Your task to perform on an android device: Clear the cart on target.com. Add dell xps to the cart on target.com, then select checkout. Image 0: 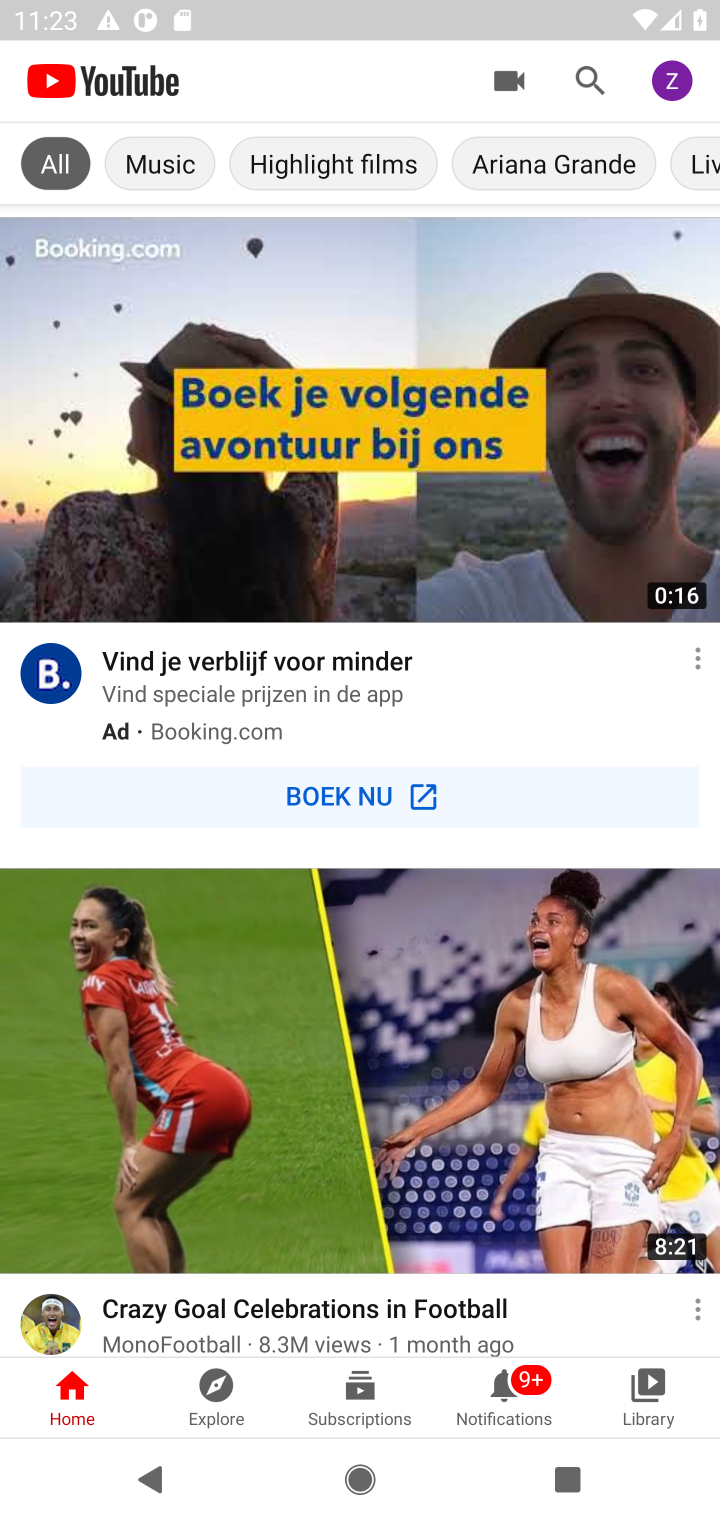
Step 0: press home button
Your task to perform on an android device: Clear the cart on target.com. Add dell xps to the cart on target.com, then select checkout. Image 1: 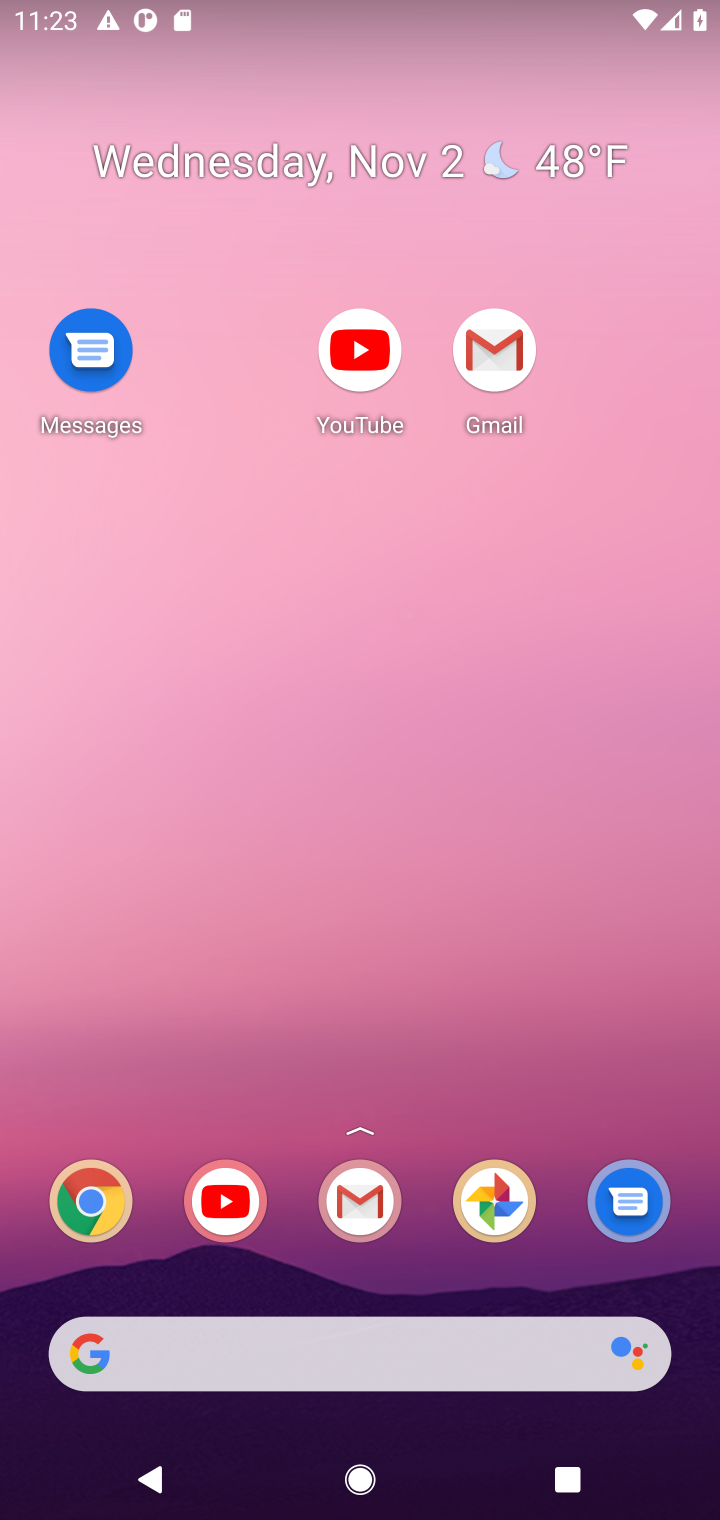
Step 1: drag from (426, 1220) to (353, 157)
Your task to perform on an android device: Clear the cart on target.com. Add dell xps to the cart on target.com, then select checkout. Image 2: 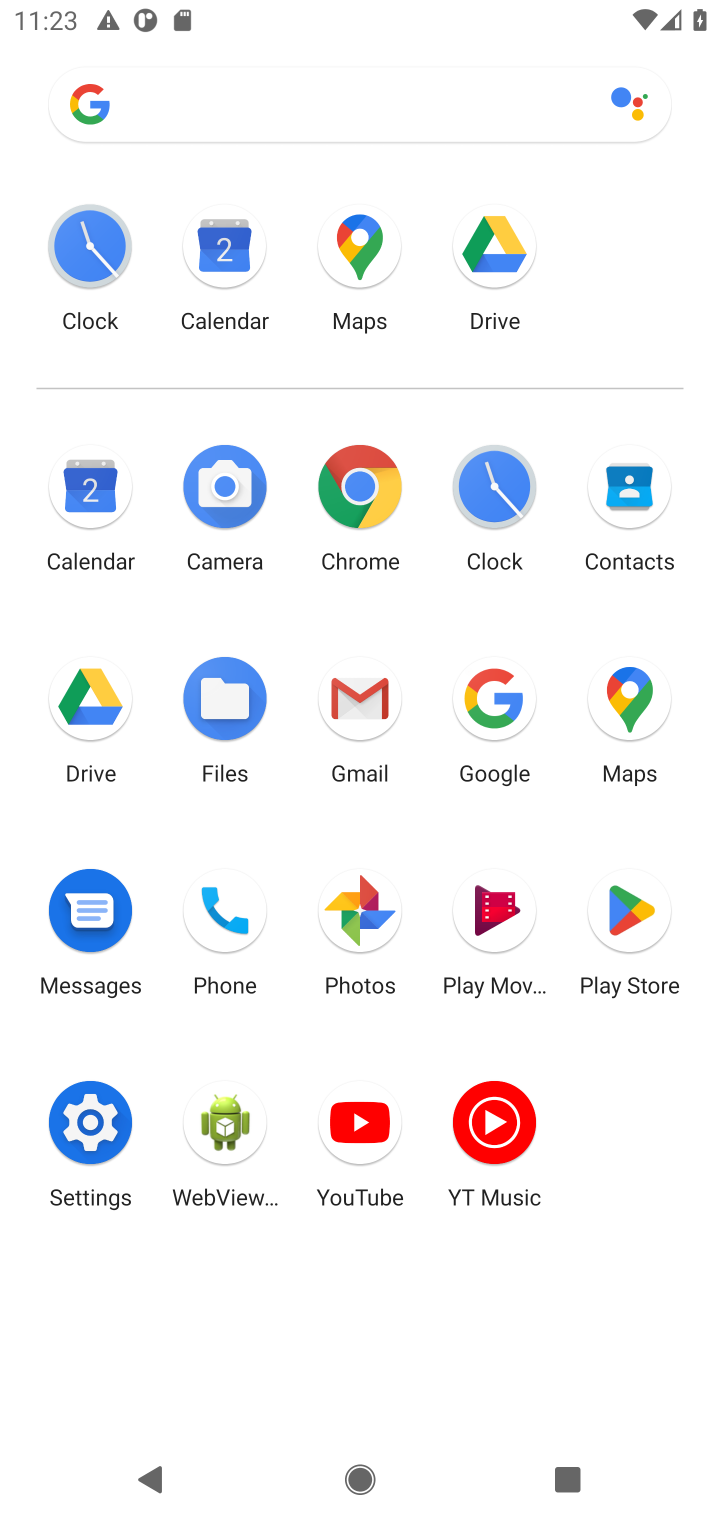
Step 2: click (356, 484)
Your task to perform on an android device: Clear the cart on target.com. Add dell xps to the cart on target.com, then select checkout. Image 3: 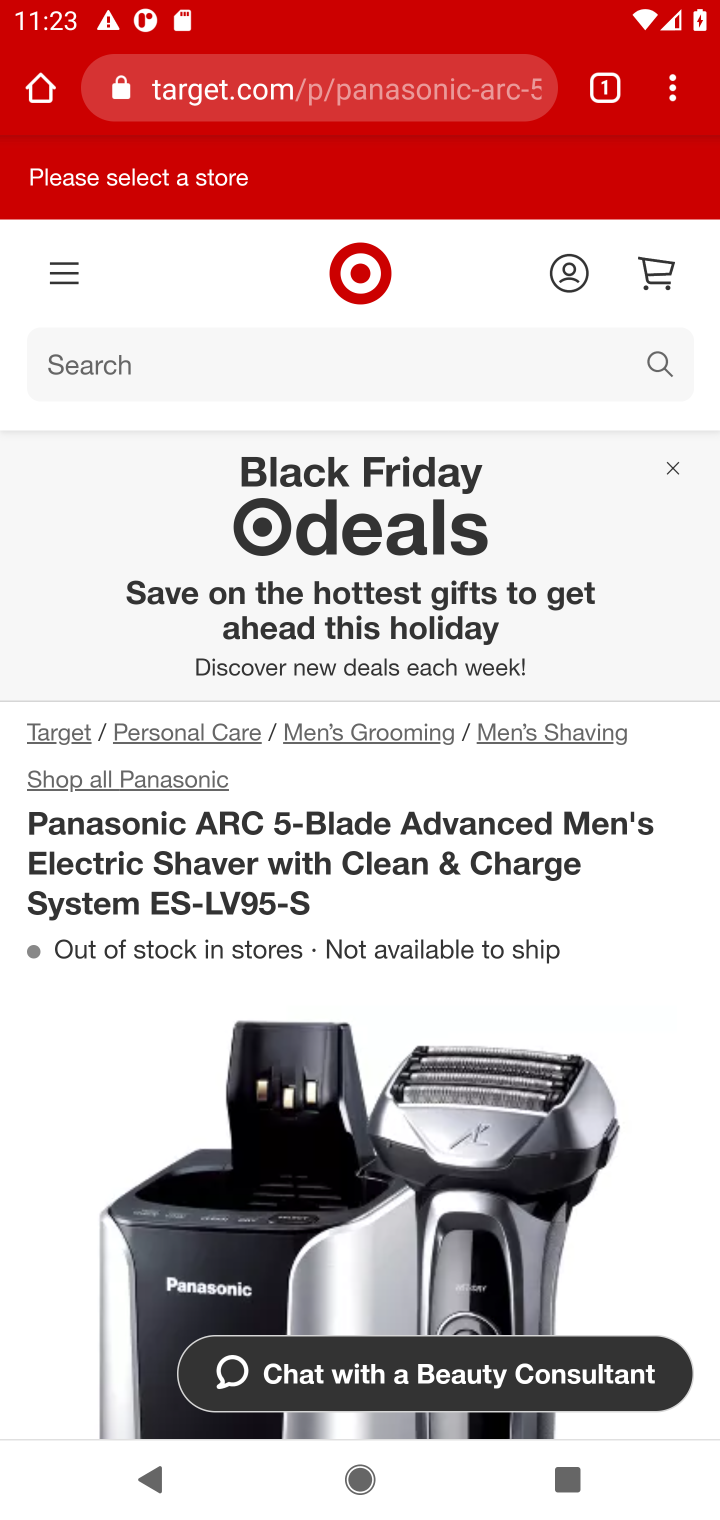
Step 3: click (357, 85)
Your task to perform on an android device: Clear the cart on target.com. Add dell xps to the cart on target.com, then select checkout. Image 4: 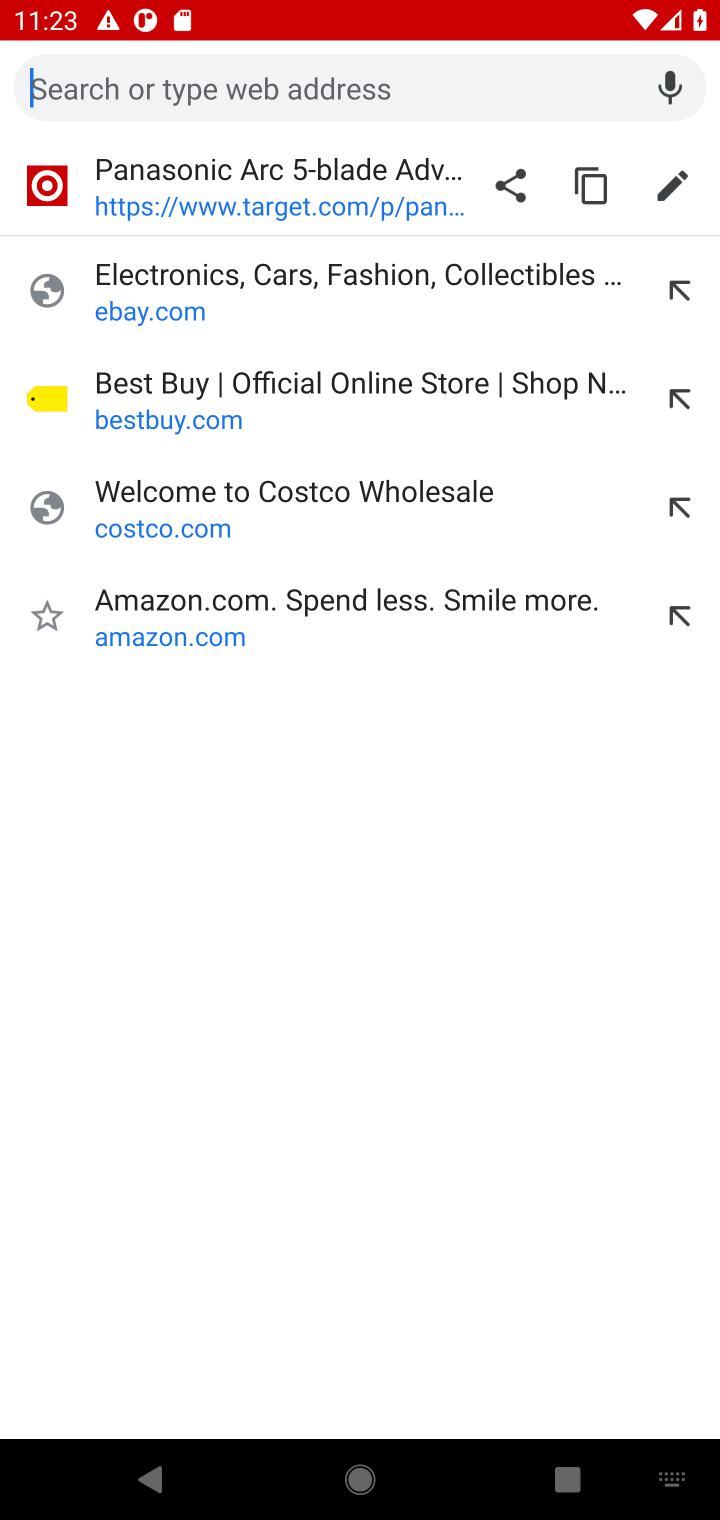
Step 4: type "target.com"
Your task to perform on an android device: Clear the cart on target.com. Add dell xps to the cart on target.com, then select checkout. Image 5: 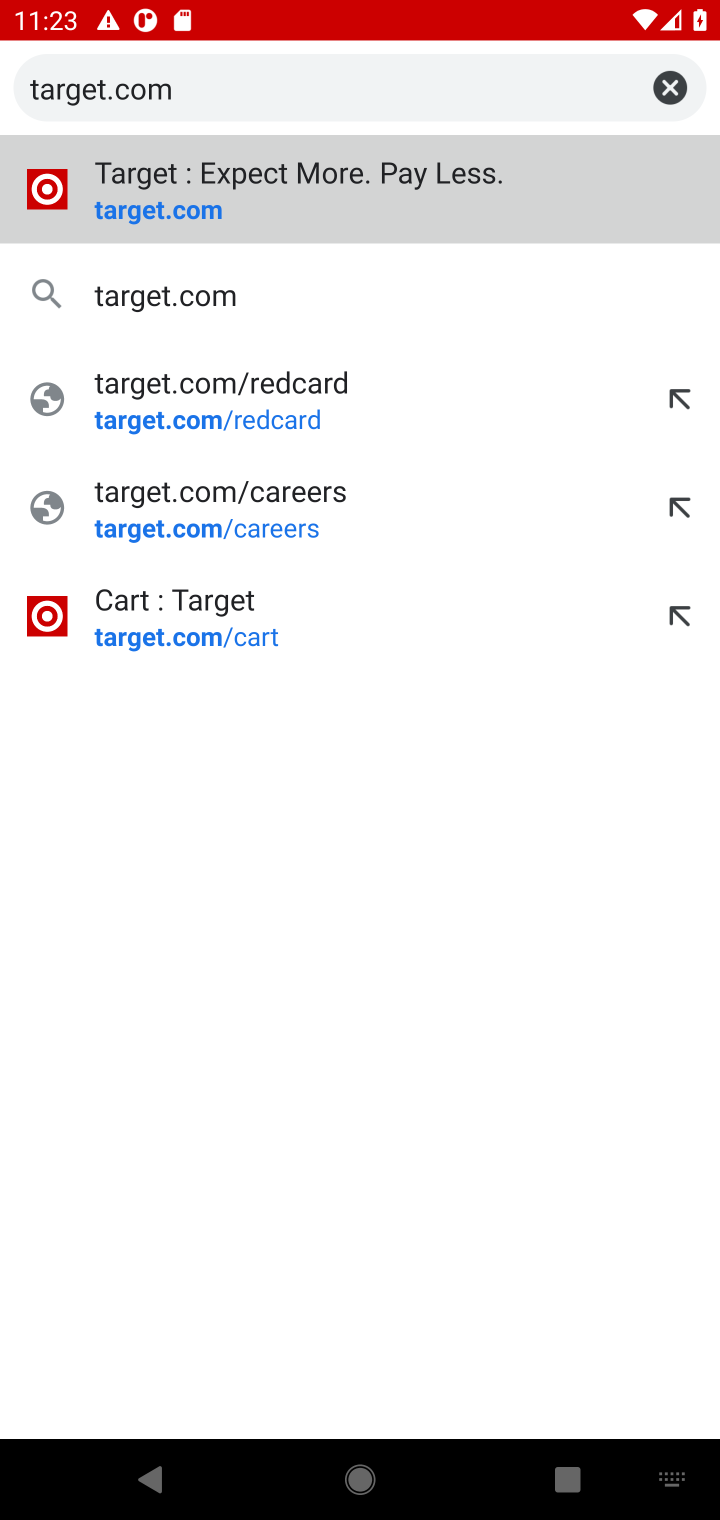
Step 5: press enter
Your task to perform on an android device: Clear the cart on target.com. Add dell xps to the cart on target.com, then select checkout. Image 6: 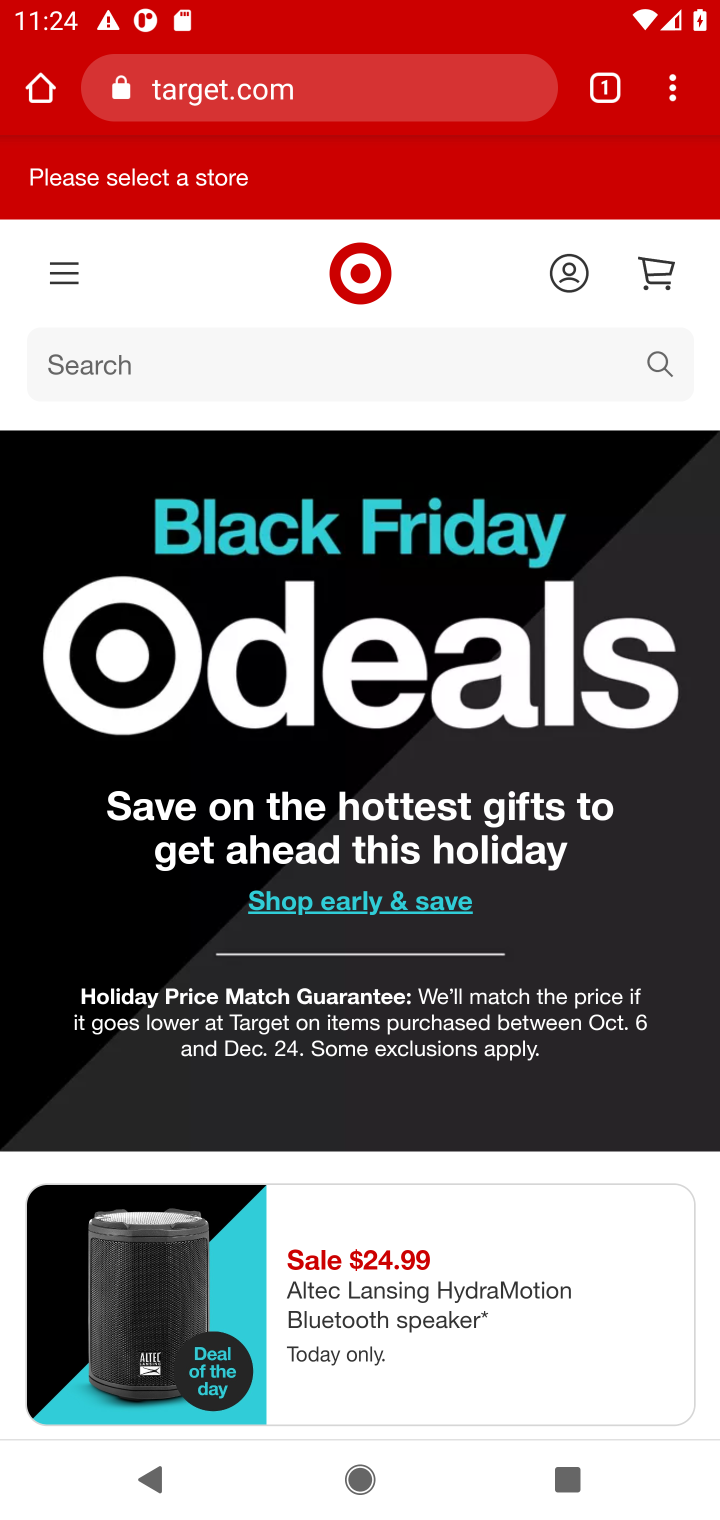
Step 6: click (335, 365)
Your task to perform on an android device: Clear the cart on target.com. Add dell xps to the cart on target.com, then select checkout. Image 7: 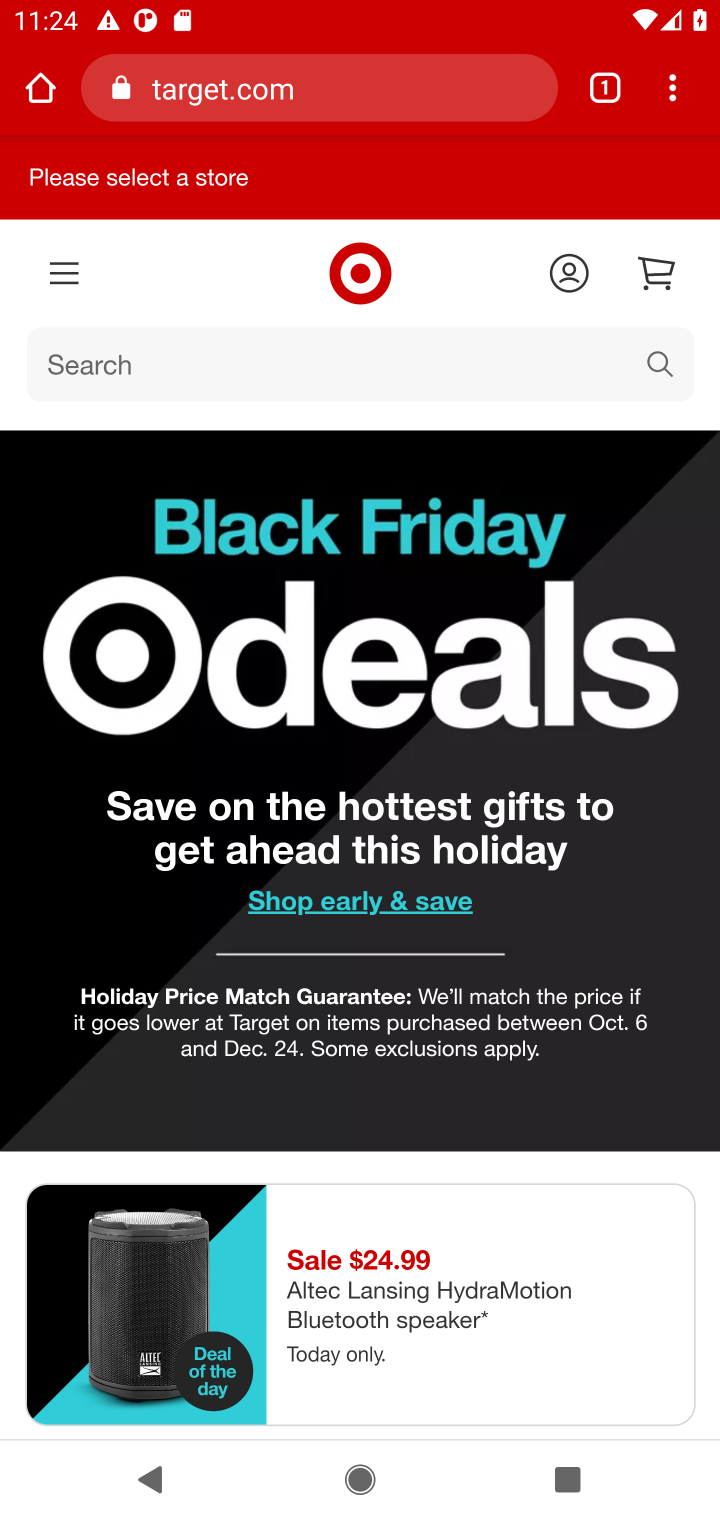
Step 7: click (362, 385)
Your task to perform on an android device: Clear the cart on target.com. Add dell xps to the cart on target.com, then select checkout. Image 8: 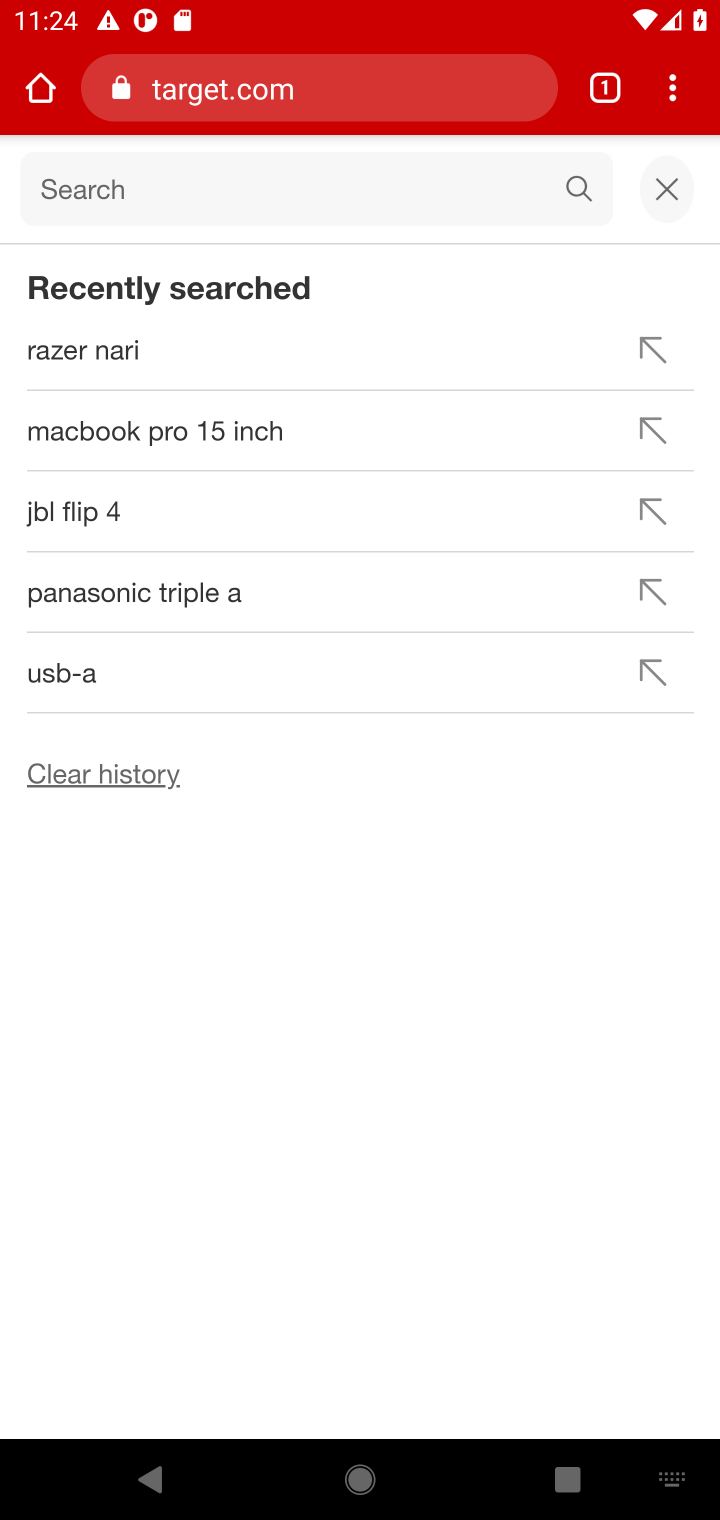
Step 8: click (683, 190)
Your task to perform on an android device: Clear the cart on target.com. Add dell xps to the cart on target.com, then select checkout. Image 9: 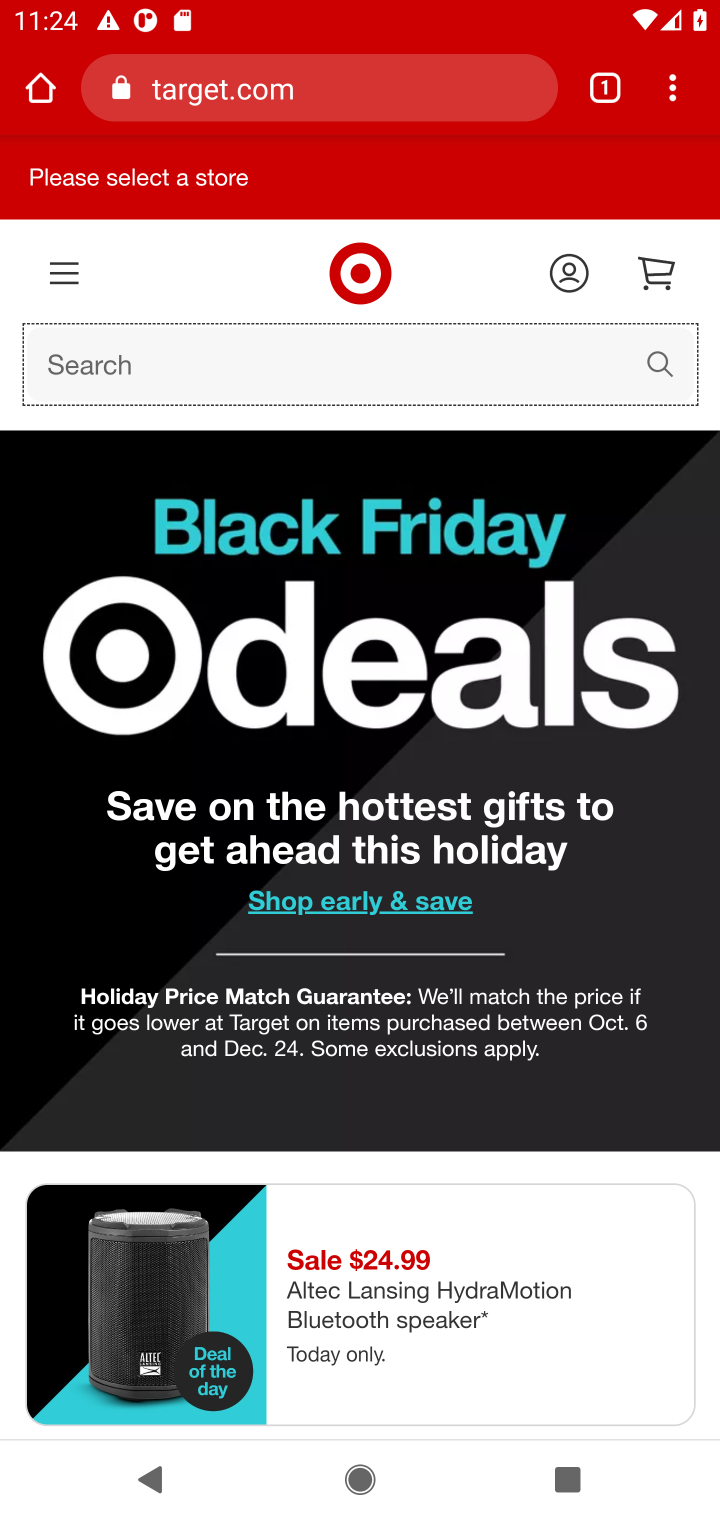
Step 9: click (662, 270)
Your task to perform on an android device: Clear the cart on target.com. Add dell xps to the cart on target.com, then select checkout. Image 10: 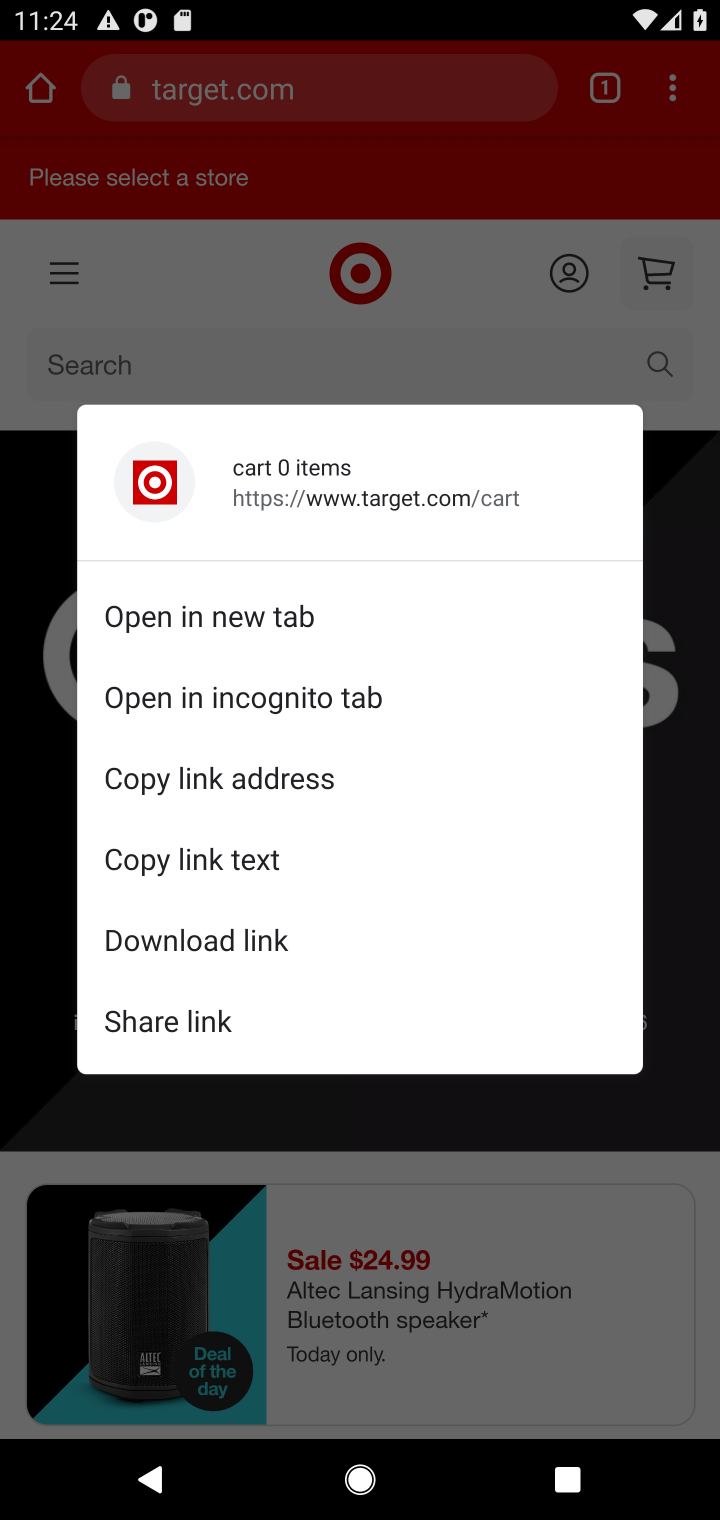
Step 10: click (627, 283)
Your task to perform on an android device: Clear the cart on target.com. Add dell xps to the cart on target.com, then select checkout. Image 11: 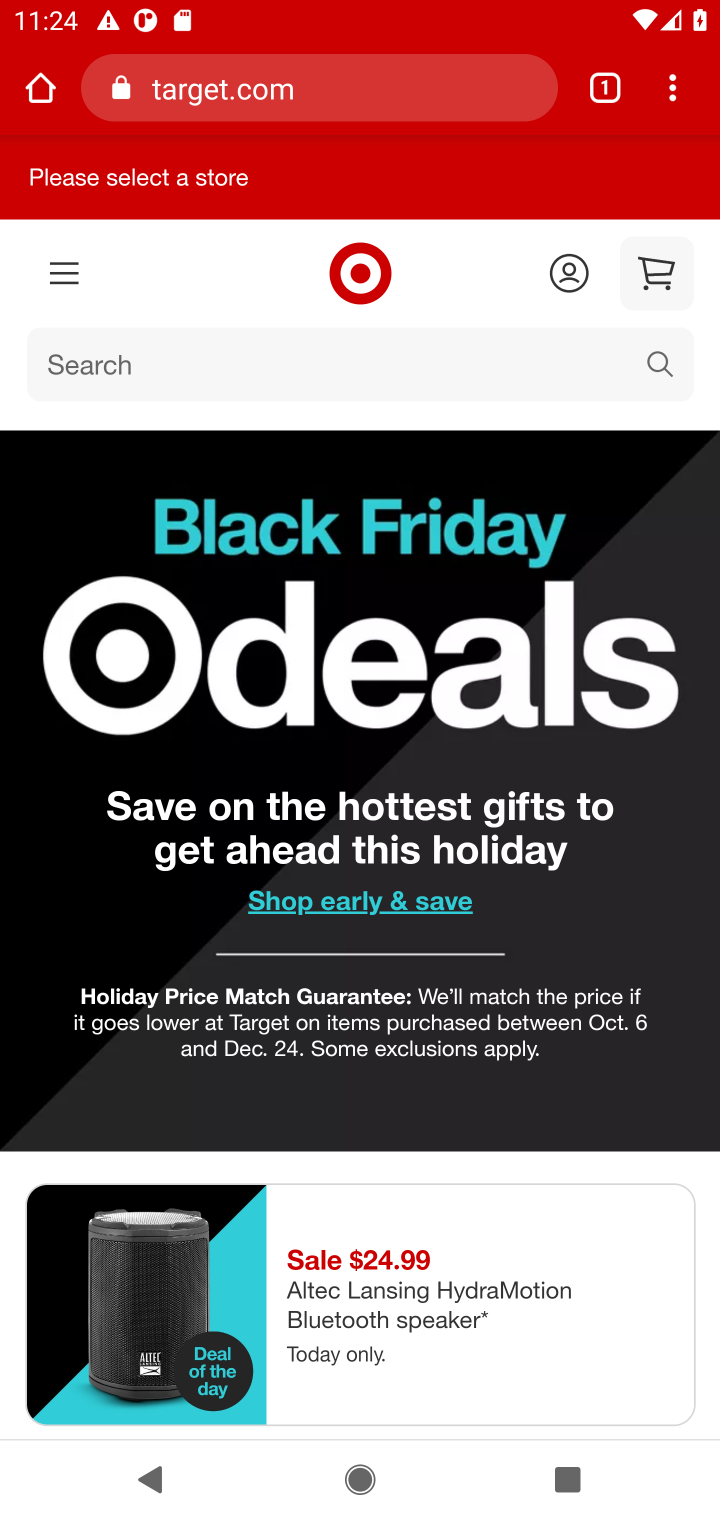
Step 11: click (663, 266)
Your task to perform on an android device: Clear the cart on target.com. Add dell xps to the cart on target.com, then select checkout. Image 12: 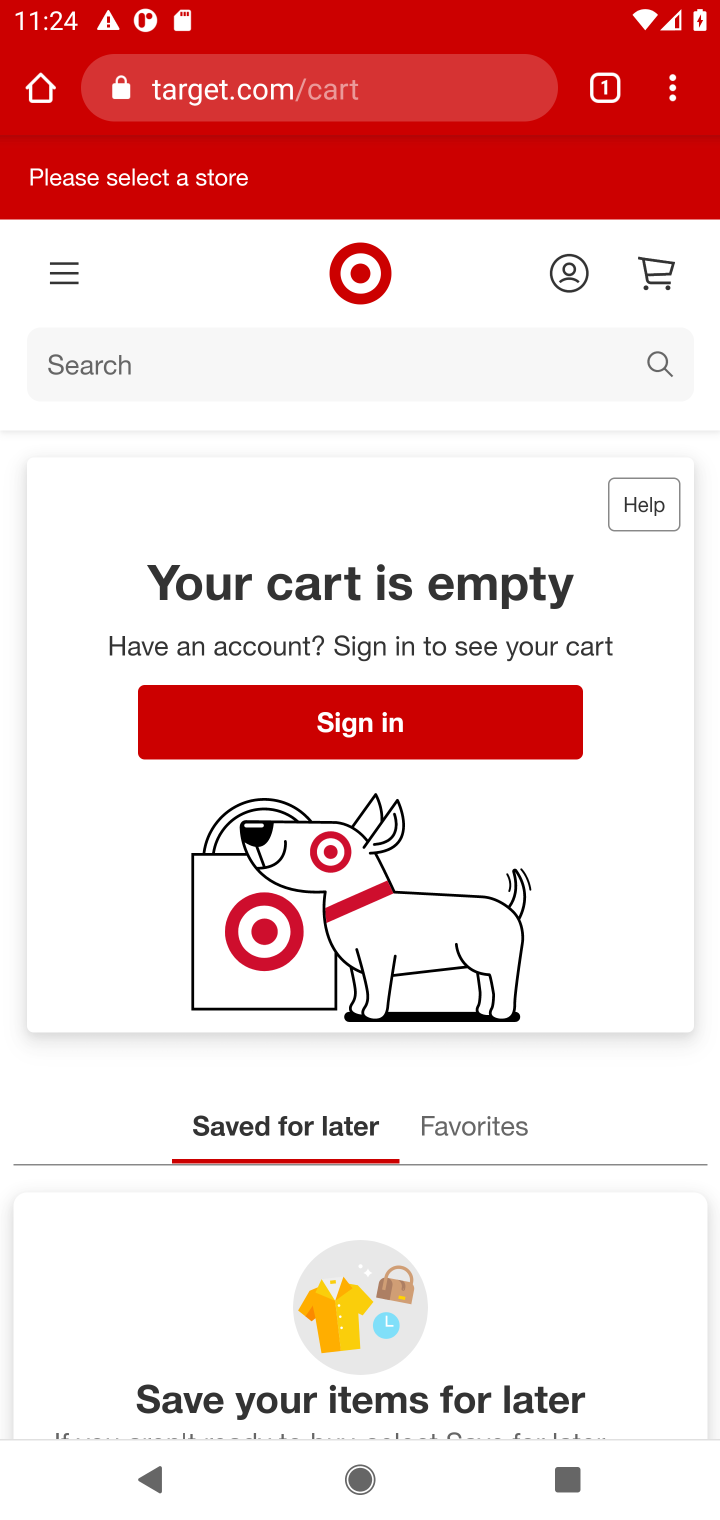
Step 12: click (115, 366)
Your task to perform on an android device: Clear the cart on target.com. Add dell xps to the cart on target.com, then select checkout. Image 13: 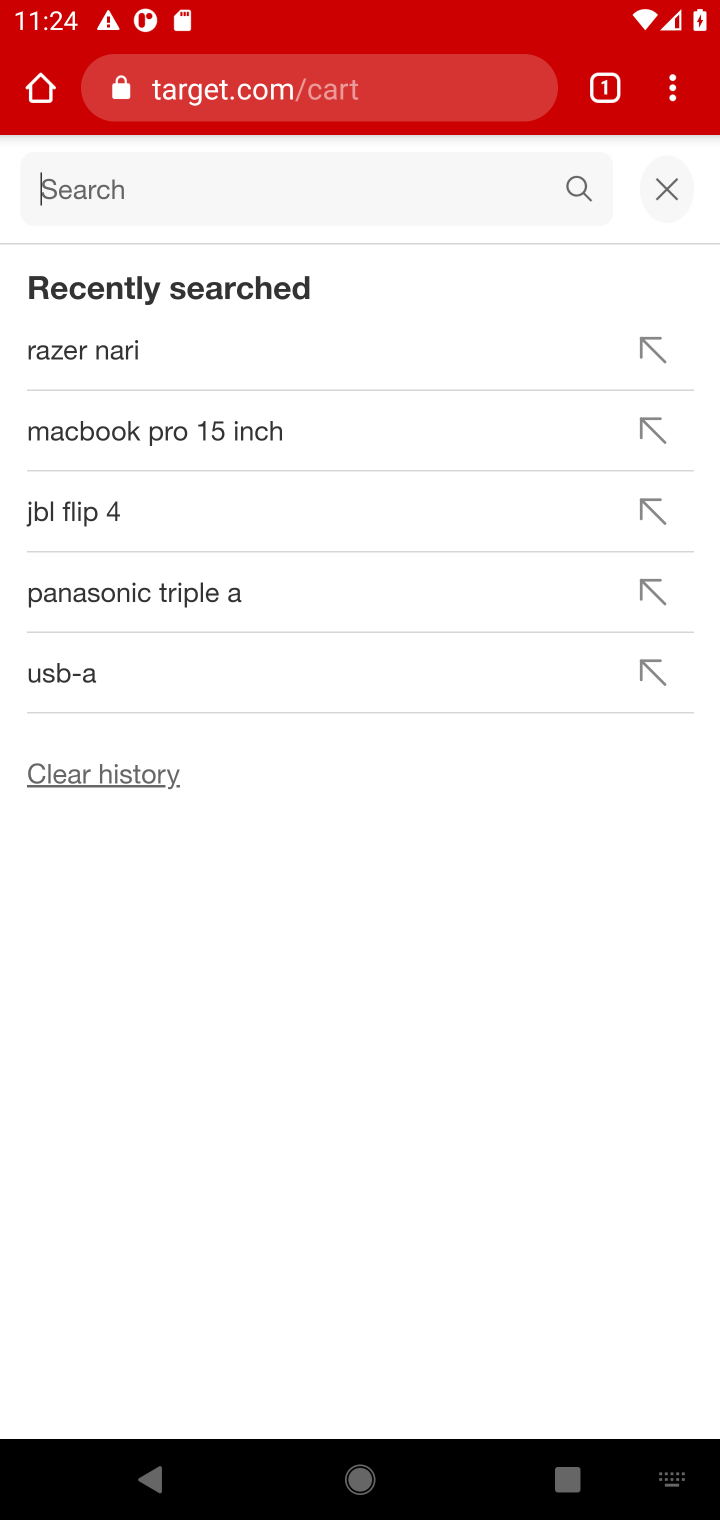
Step 13: type "dell xps"
Your task to perform on an android device: Clear the cart on target.com. Add dell xps to the cart on target.com, then select checkout. Image 14: 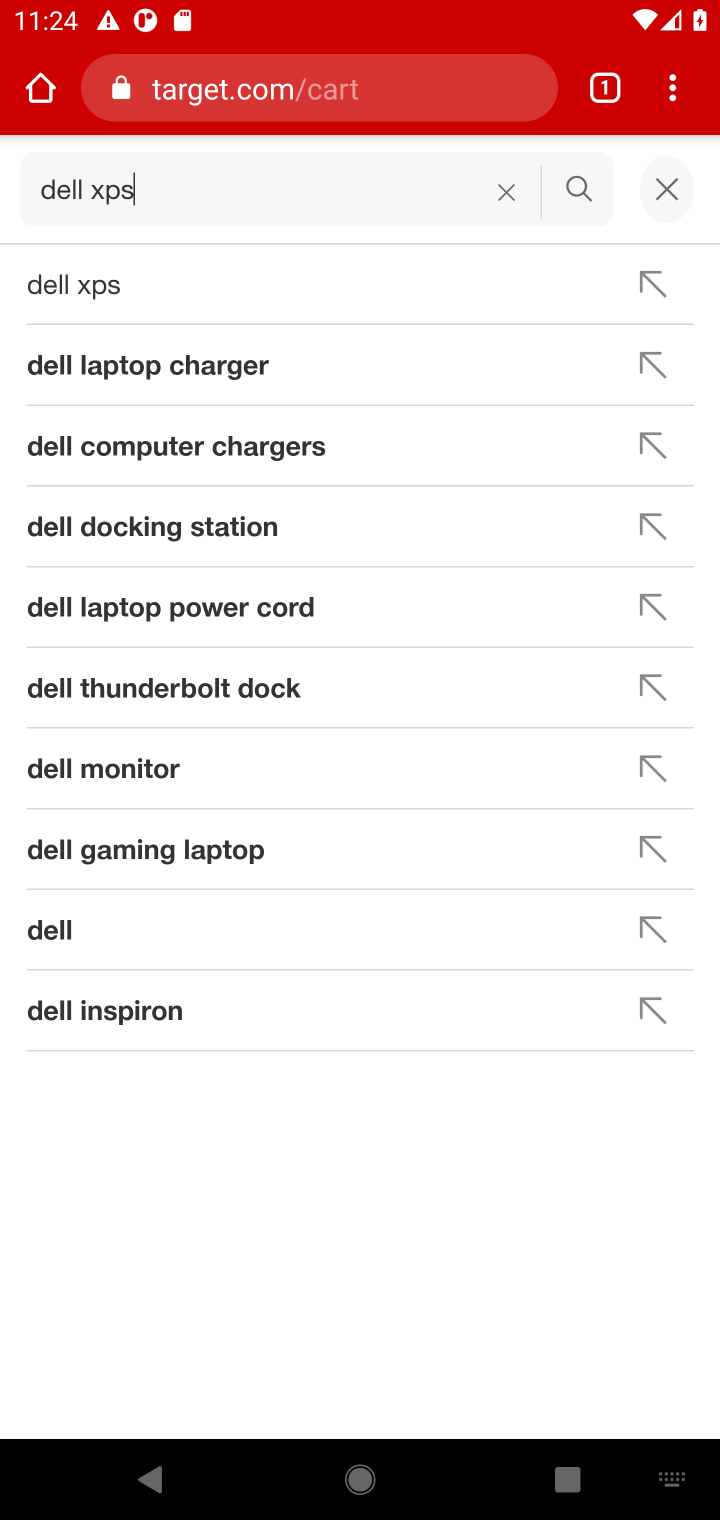
Step 14: press enter
Your task to perform on an android device: Clear the cart on target.com. Add dell xps to the cart on target.com, then select checkout. Image 15: 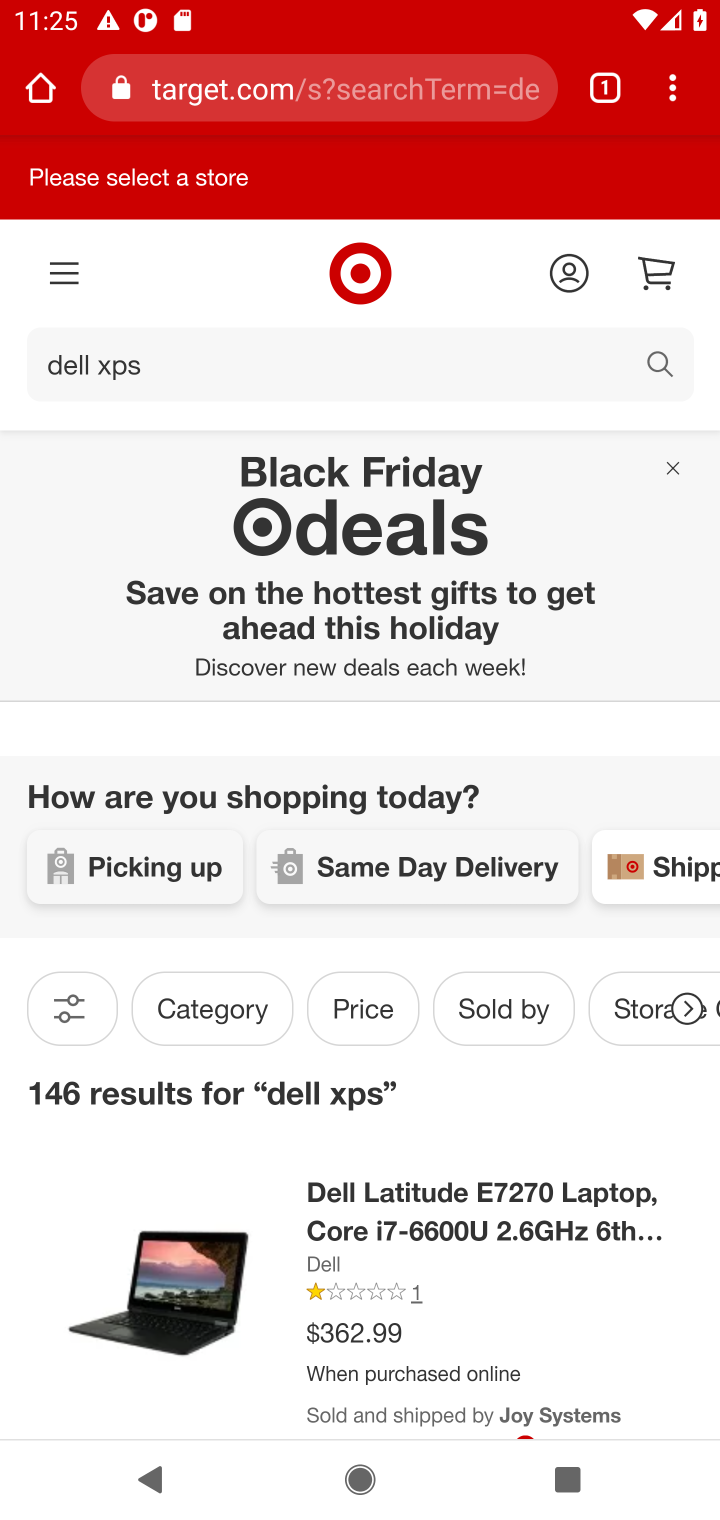
Step 15: task complete